Your task to perform on an android device: toggle pop-ups in chrome Image 0: 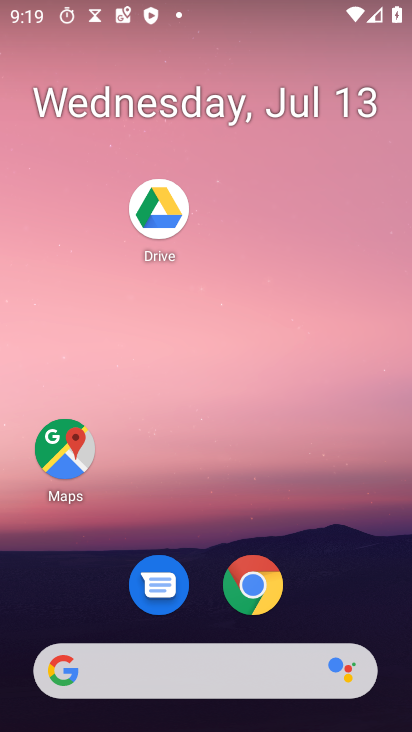
Step 0: click (244, 584)
Your task to perform on an android device: toggle pop-ups in chrome Image 1: 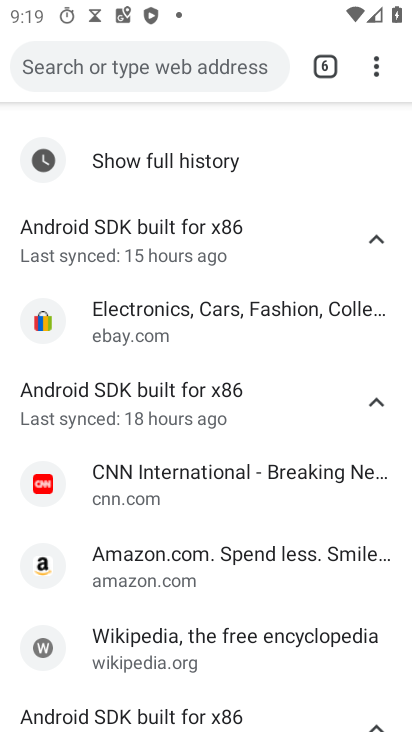
Step 1: drag from (376, 64) to (224, 555)
Your task to perform on an android device: toggle pop-ups in chrome Image 2: 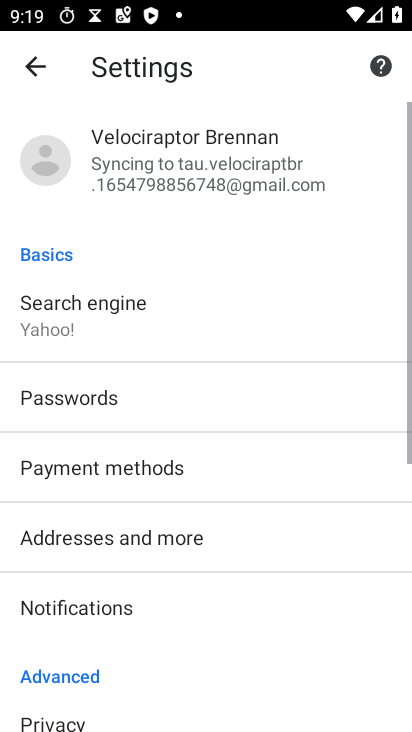
Step 2: drag from (190, 647) to (362, 203)
Your task to perform on an android device: toggle pop-ups in chrome Image 3: 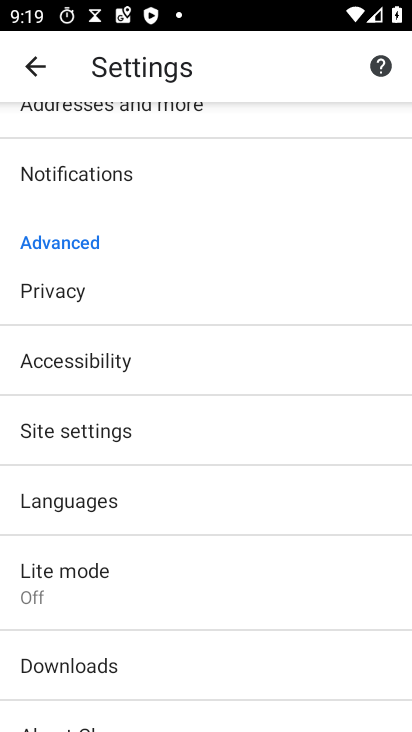
Step 3: click (87, 431)
Your task to perform on an android device: toggle pop-ups in chrome Image 4: 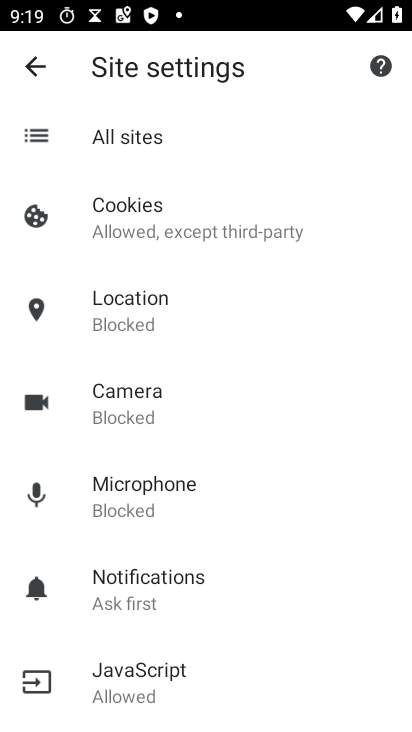
Step 4: drag from (258, 654) to (357, 121)
Your task to perform on an android device: toggle pop-ups in chrome Image 5: 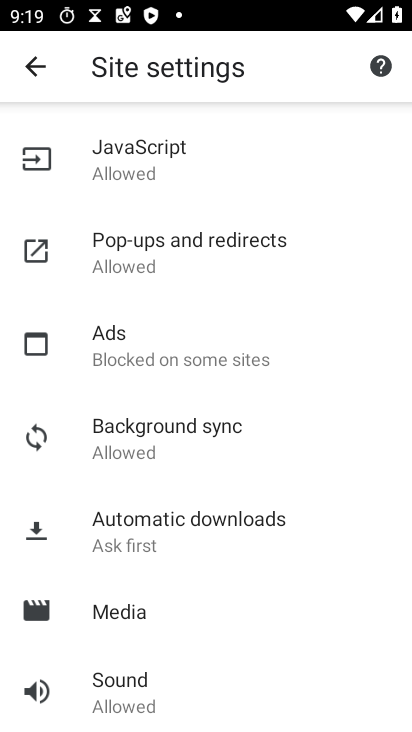
Step 5: click (130, 261)
Your task to perform on an android device: toggle pop-ups in chrome Image 6: 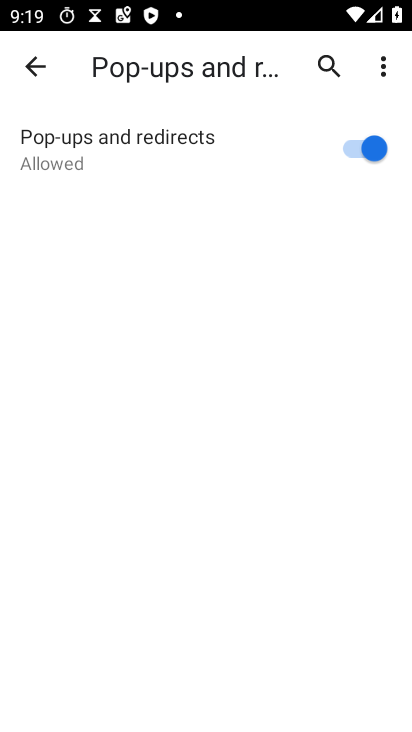
Step 6: click (355, 145)
Your task to perform on an android device: toggle pop-ups in chrome Image 7: 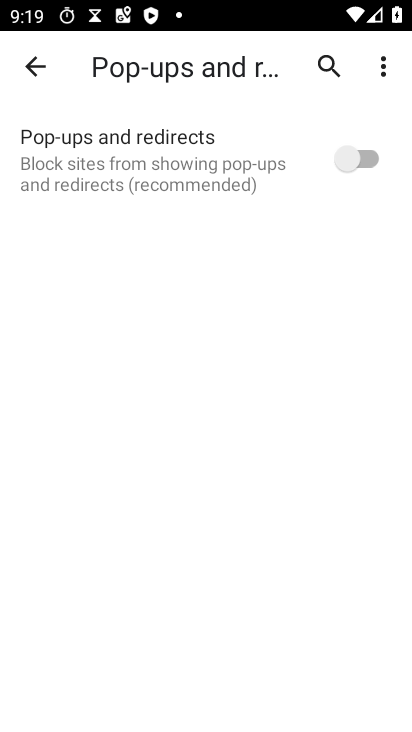
Step 7: task complete